Your task to perform on an android device: Open wifi settings Image 0: 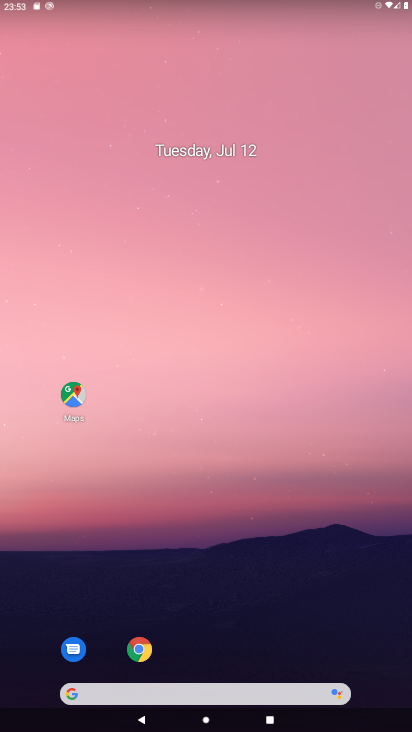
Step 0: drag from (388, 663) to (314, 51)
Your task to perform on an android device: Open wifi settings Image 1: 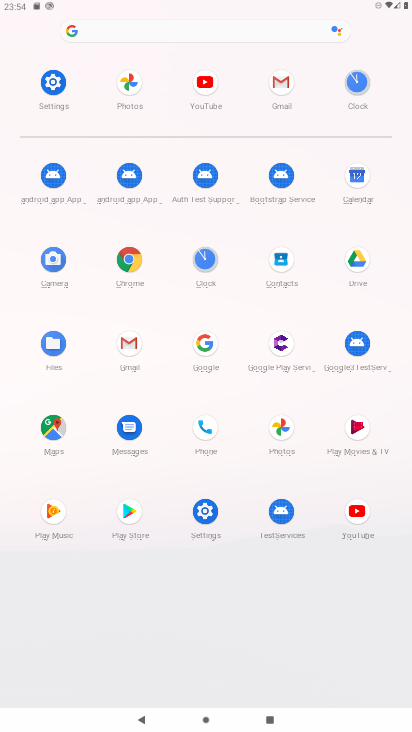
Step 1: click (206, 514)
Your task to perform on an android device: Open wifi settings Image 2: 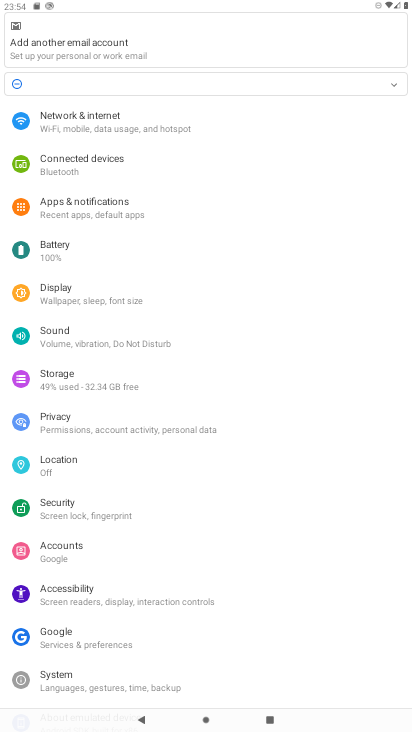
Step 2: click (72, 113)
Your task to perform on an android device: Open wifi settings Image 3: 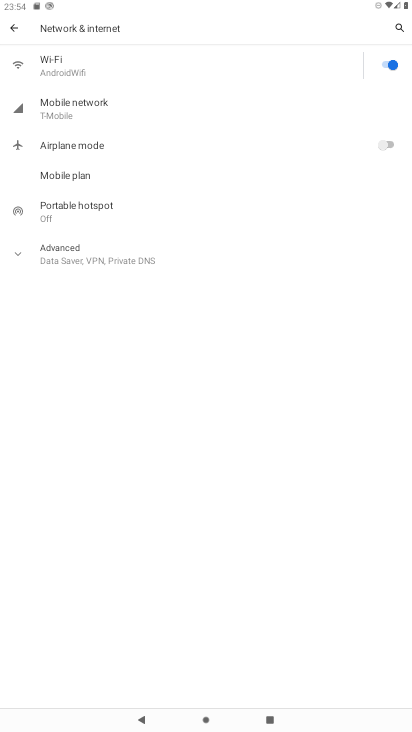
Step 3: click (67, 63)
Your task to perform on an android device: Open wifi settings Image 4: 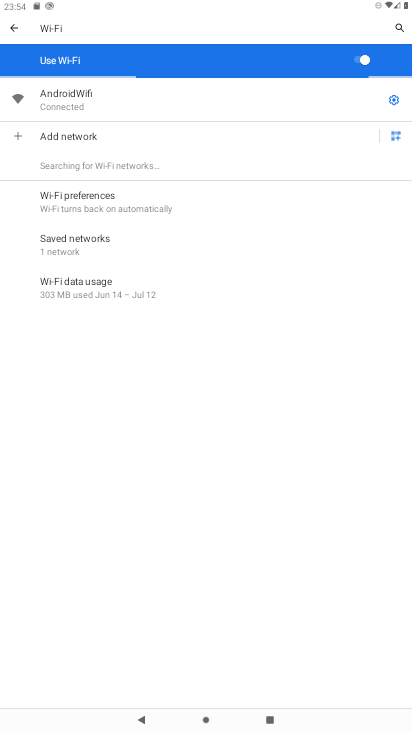
Step 4: task complete